Your task to perform on an android device: Open Wikipedia Image 0: 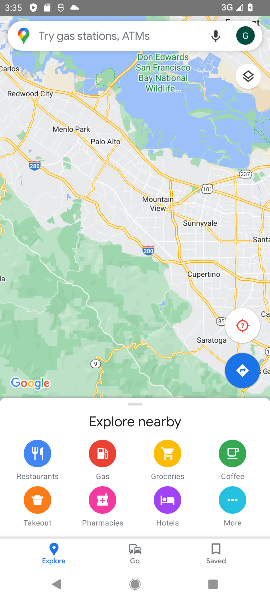
Step 0: press home button
Your task to perform on an android device: Open Wikipedia Image 1: 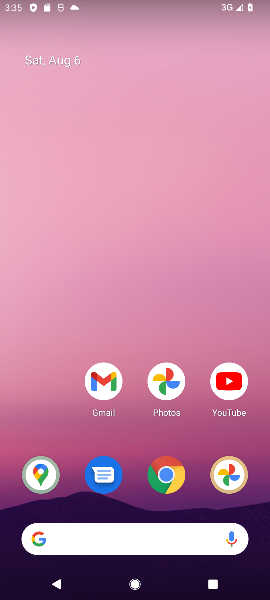
Step 1: click (83, 540)
Your task to perform on an android device: Open Wikipedia Image 2: 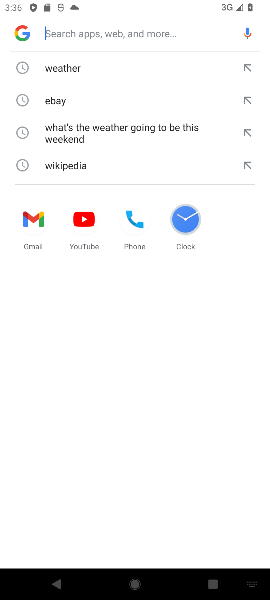
Step 2: type "Wikipedia"
Your task to perform on an android device: Open Wikipedia Image 3: 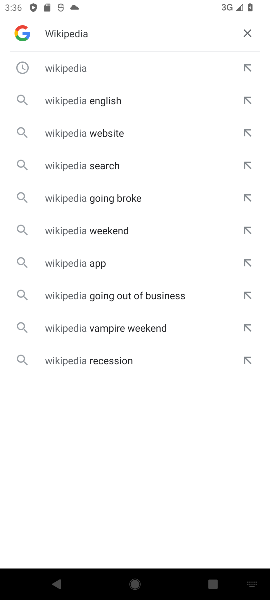
Step 3: click (62, 66)
Your task to perform on an android device: Open Wikipedia Image 4: 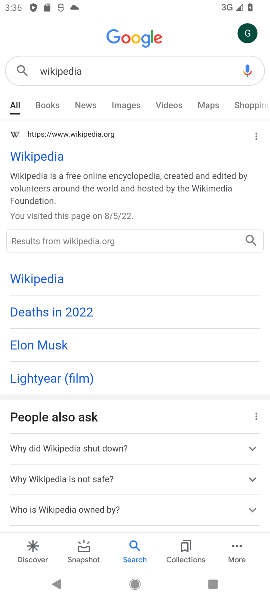
Step 4: task complete